Your task to perform on an android device: What's on my calendar today? Image 0: 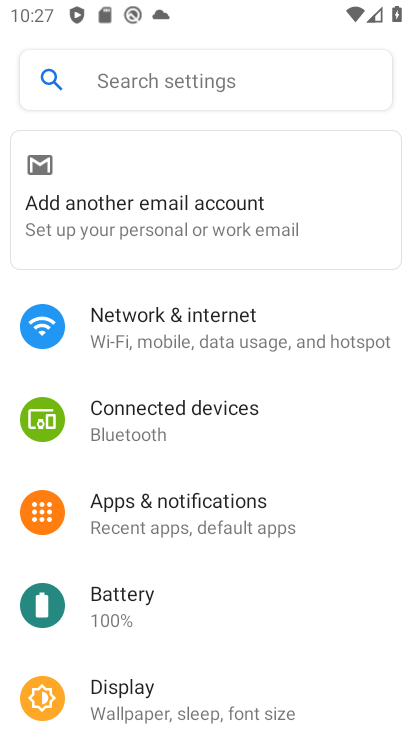
Step 0: press home button
Your task to perform on an android device: What's on my calendar today? Image 1: 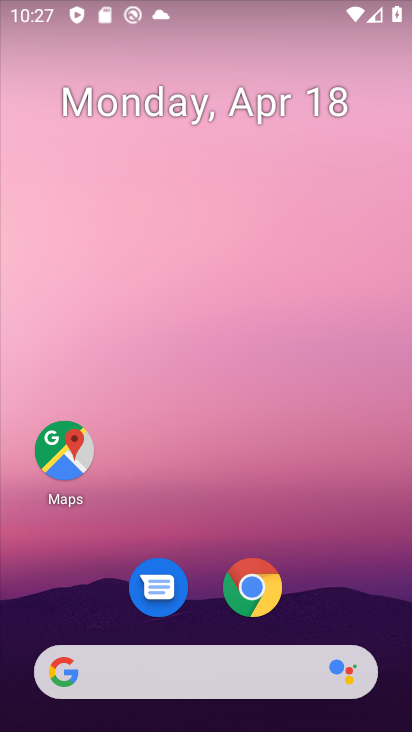
Step 1: drag from (367, 469) to (386, 95)
Your task to perform on an android device: What's on my calendar today? Image 2: 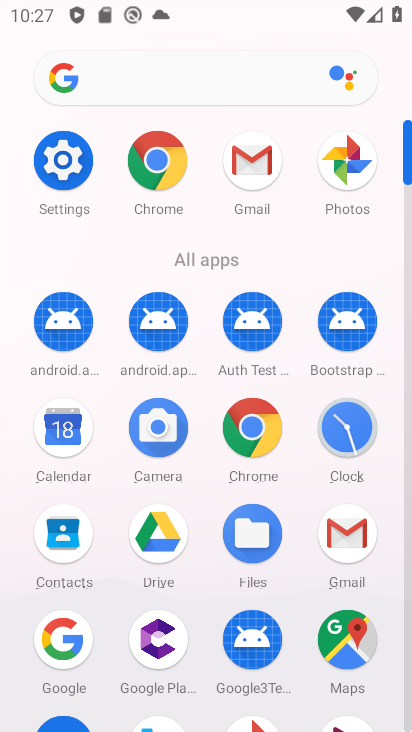
Step 2: click (54, 444)
Your task to perform on an android device: What's on my calendar today? Image 3: 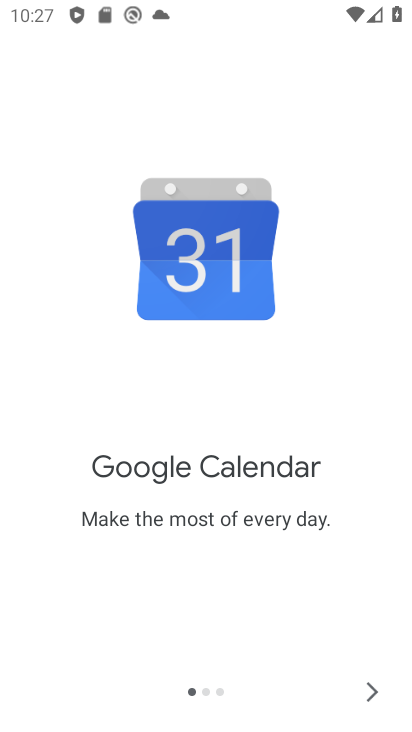
Step 3: click (377, 693)
Your task to perform on an android device: What's on my calendar today? Image 4: 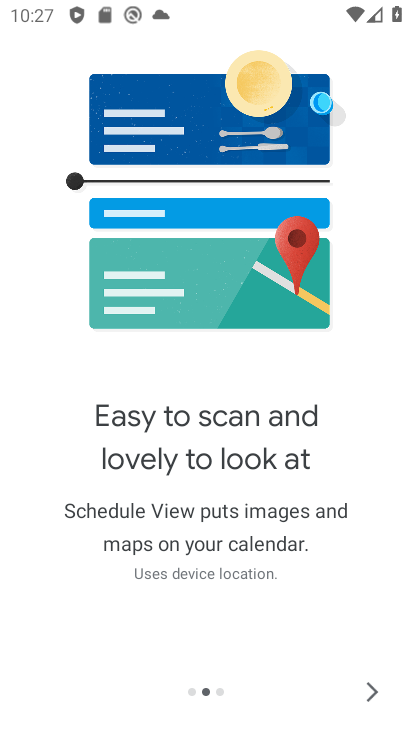
Step 4: click (377, 690)
Your task to perform on an android device: What's on my calendar today? Image 5: 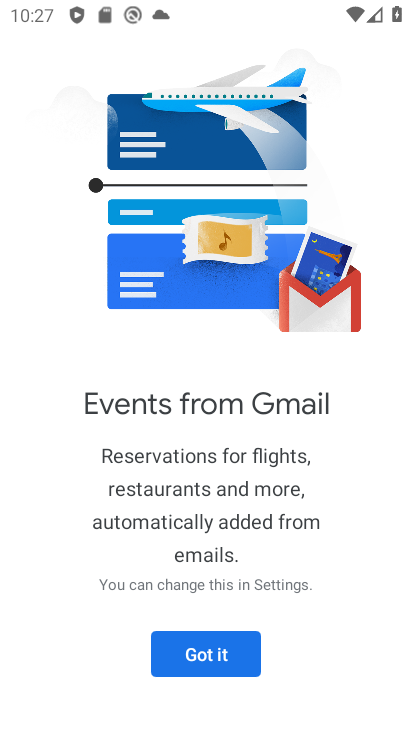
Step 5: click (197, 646)
Your task to perform on an android device: What's on my calendar today? Image 6: 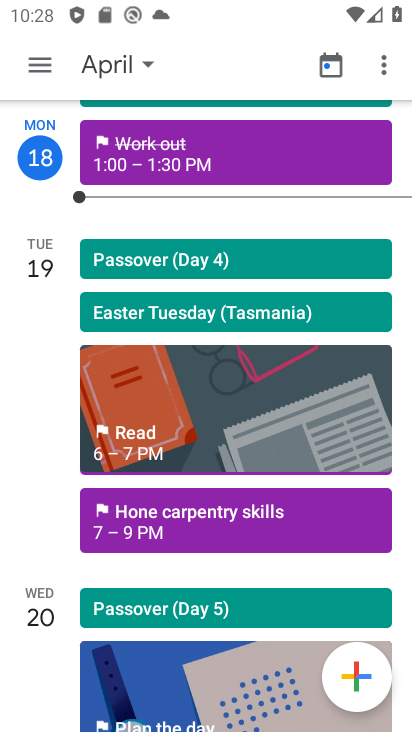
Step 6: task complete